Your task to perform on an android device: Clear the cart on ebay. Search for razer huntsman on ebay, select the first entry, and add it to the cart. Image 0: 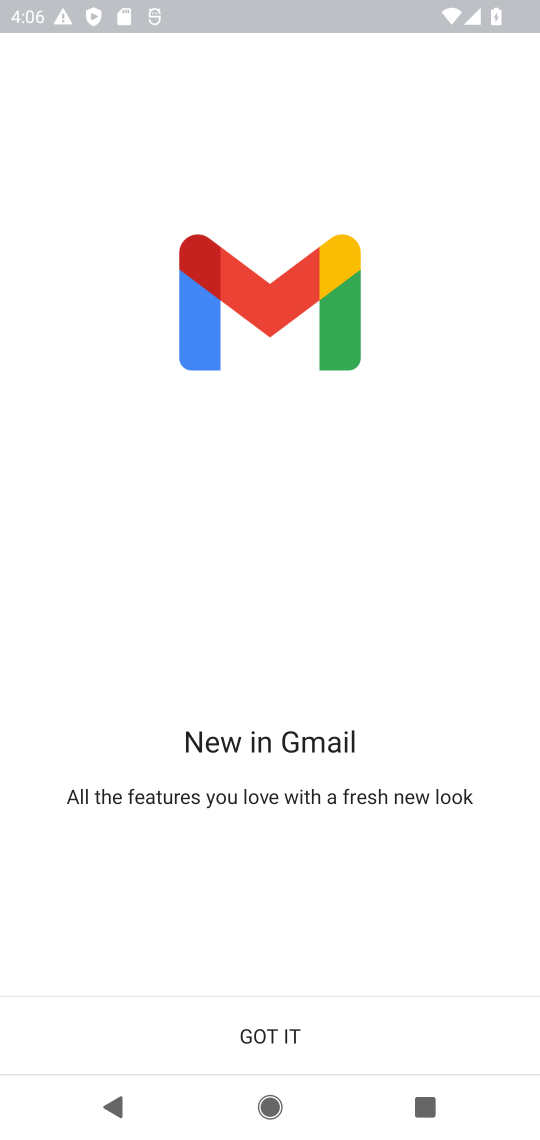
Step 0: press home button
Your task to perform on an android device: Clear the cart on ebay. Search for razer huntsman on ebay, select the first entry, and add it to the cart. Image 1: 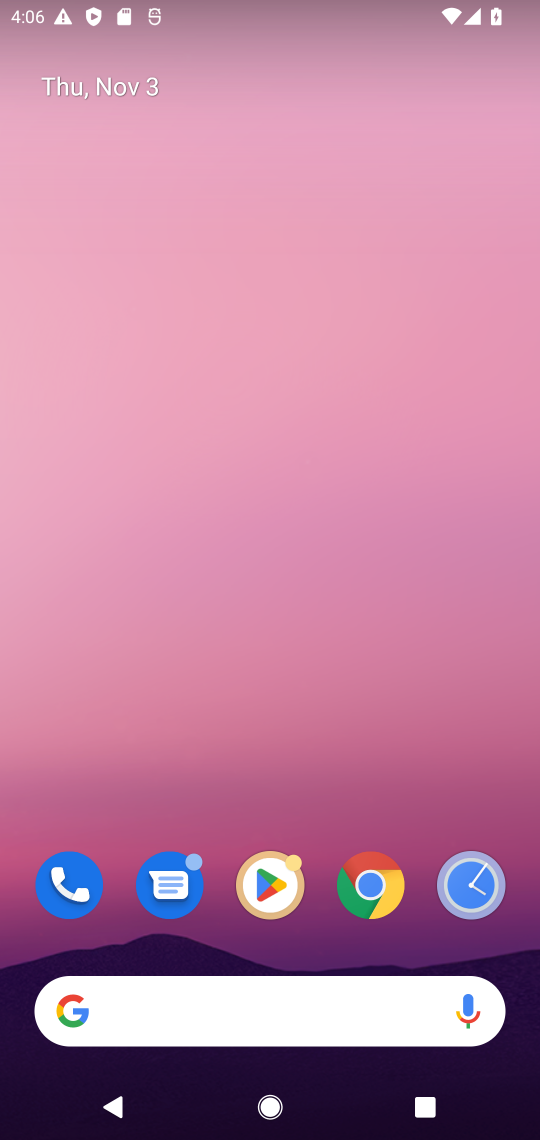
Step 1: click (389, 868)
Your task to perform on an android device: Clear the cart on ebay. Search for razer huntsman on ebay, select the first entry, and add it to the cart. Image 2: 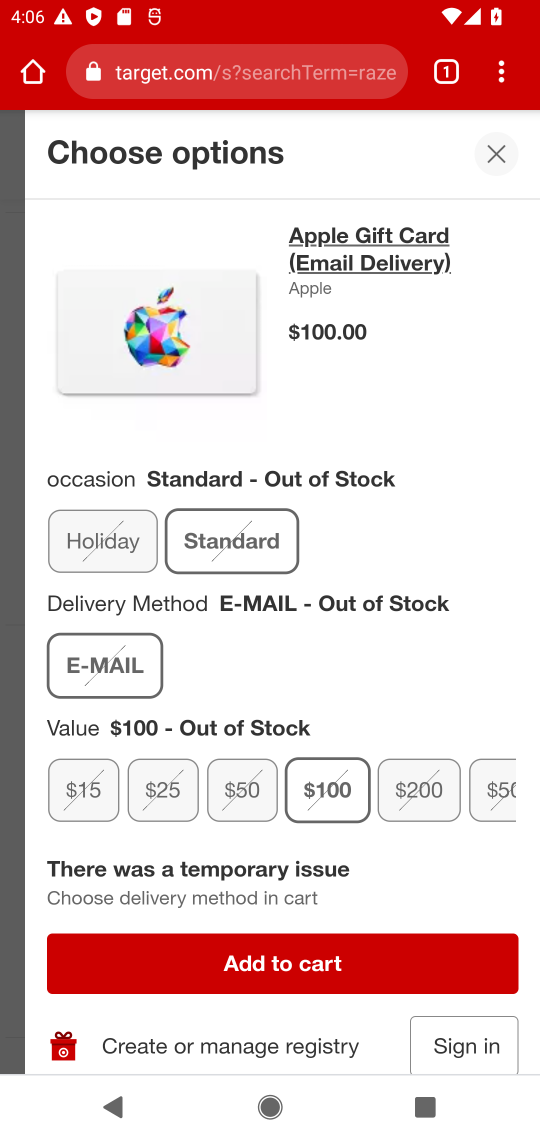
Step 2: click (448, 77)
Your task to perform on an android device: Clear the cart on ebay. Search for razer huntsman on ebay, select the first entry, and add it to the cart. Image 3: 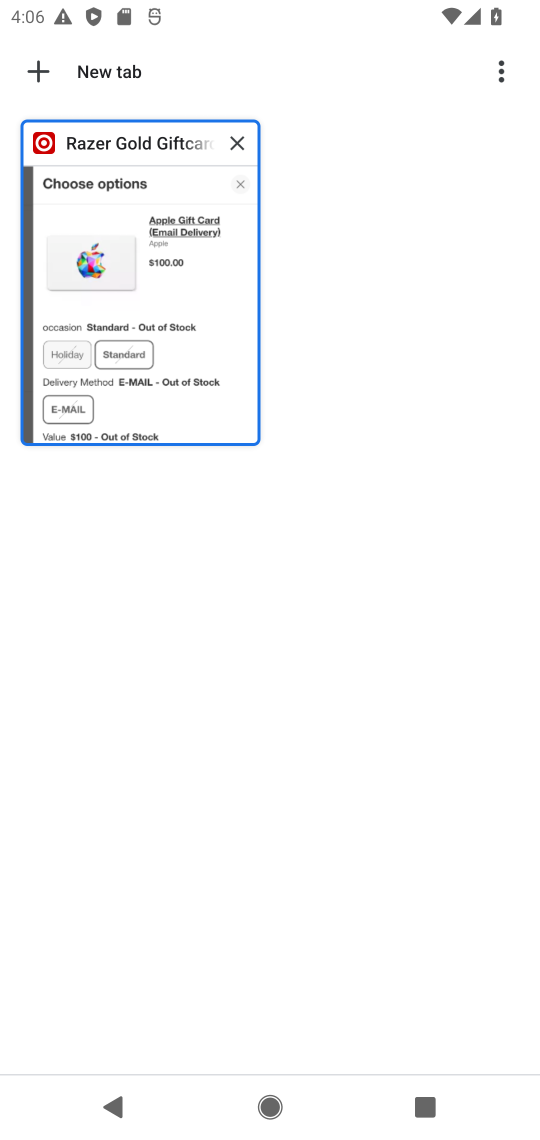
Step 3: click (37, 73)
Your task to perform on an android device: Clear the cart on ebay. Search for razer huntsman on ebay, select the first entry, and add it to the cart. Image 4: 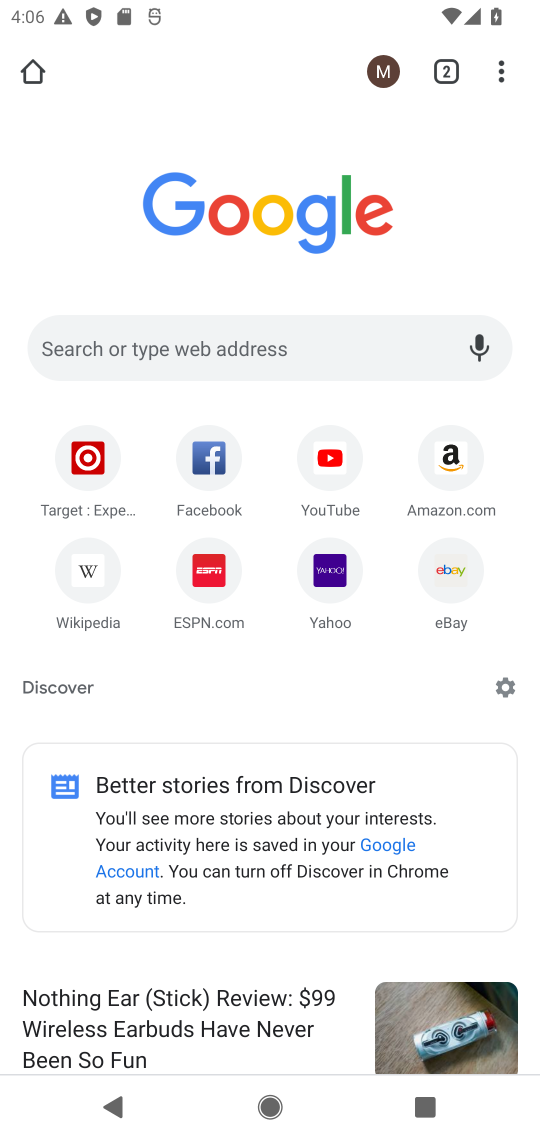
Step 4: click (250, 330)
Your task to perform on an android device: Clear the cart on ebay. Search for razer huntsman on ebay, select the first entry, and add it to the cart. Image 5: 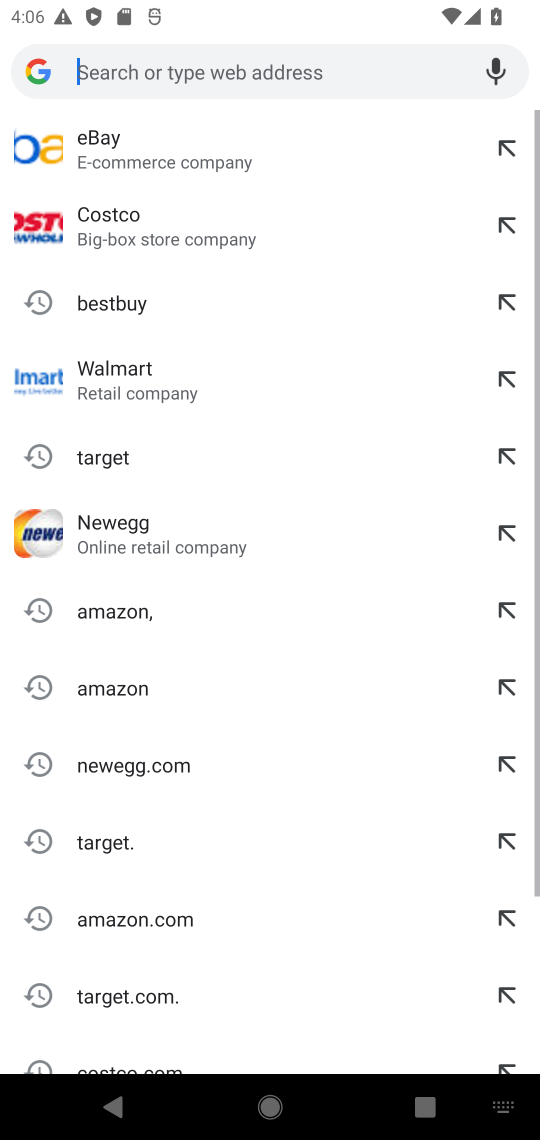
Step 5: type "ebay"
Your task to perform on an android device: Clear the cart on ebay. Search for razer huntsman on ebay, select the first entry, and add it to the cart. Image 6: 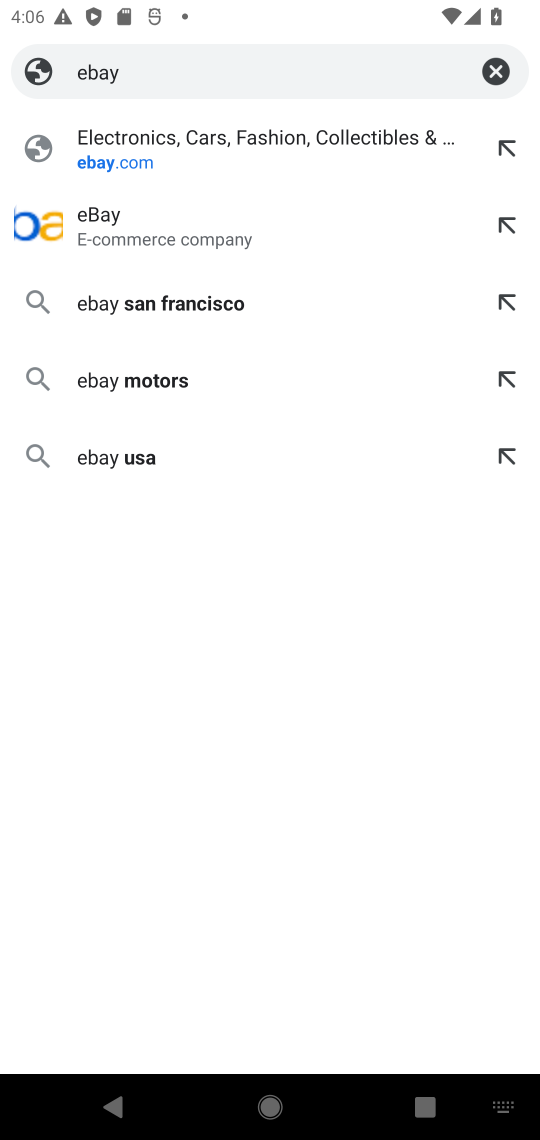
Step 6: click (137, 142)
Your task to perform on an android device: Clear the cart on ebay. Search for razer huntsman on ebay, select the first entry, and add it to the cart. Image 7: 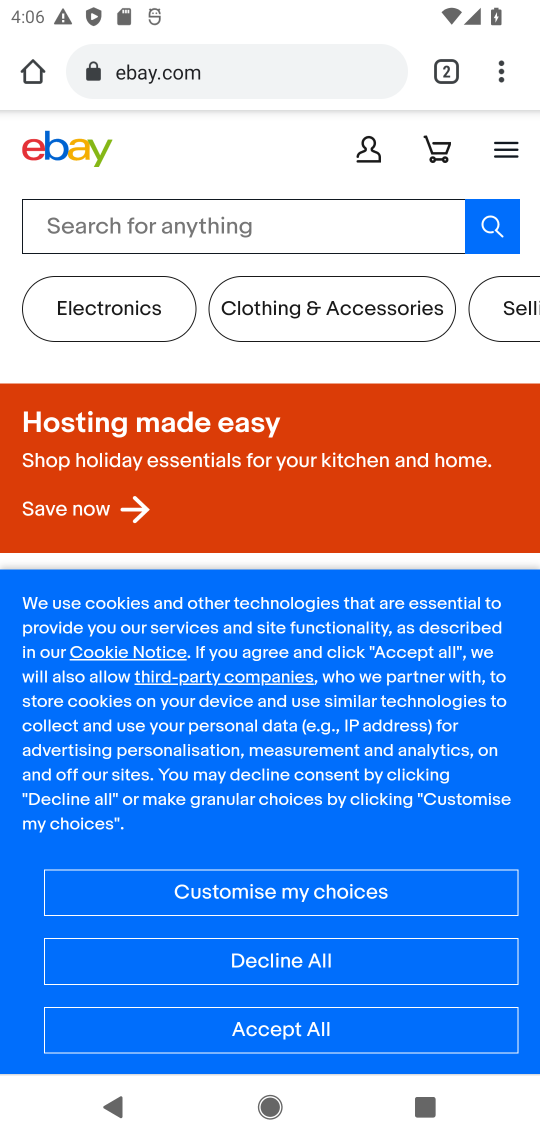
Step 7: click (335, 964)
Your task to perform on an android device: Clear the cart on ebay. Search for razer huntsman on ebay, select the first entry, and add it to the cart. Image 8: 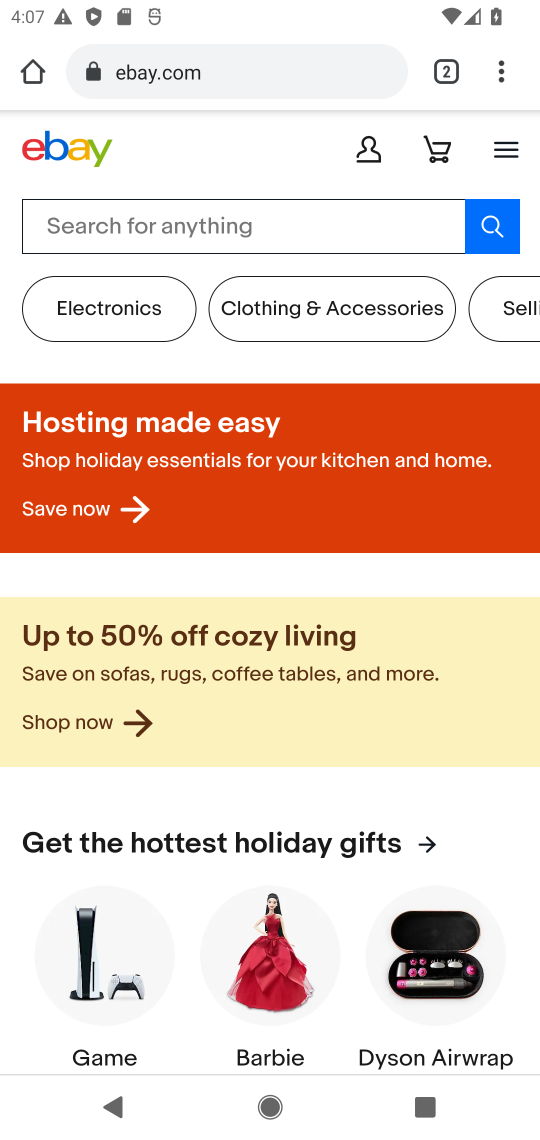
Step 8: click (317, 231)
Your task to perform on an android device: Clear the cart on ebay. Search for razer huntsman on ebay, select the first entry, and add it to the cart. Image 9: 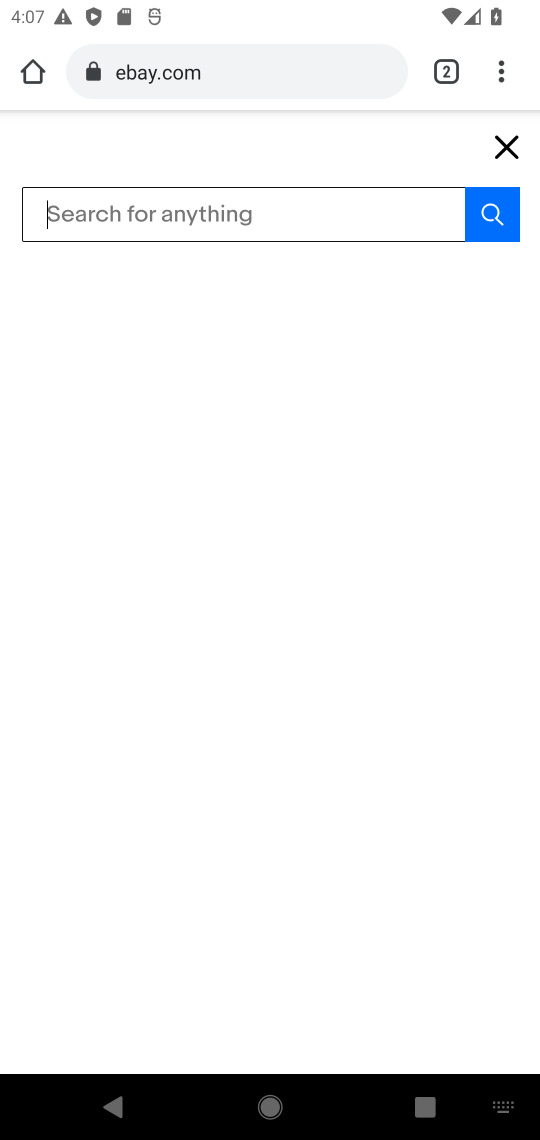
Step 9: type "razer huntsman"
Your task to perform on an android device: Clear the cart on ebay. Search for razer huntsman on ebay, select the first entry, and add it to the cart. Image 10: 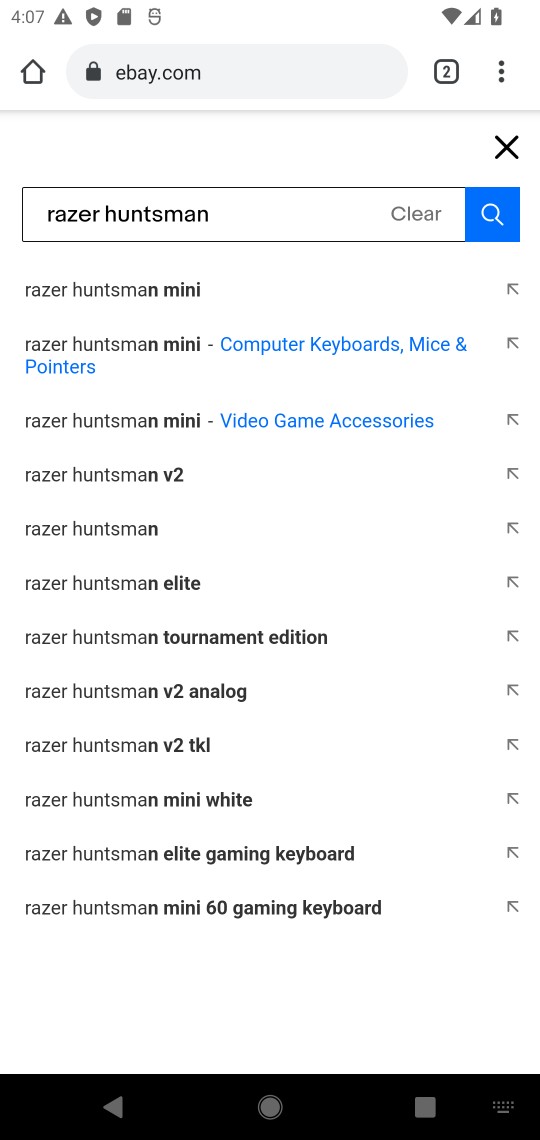
Step 10: click (181, 342)
Your task to perform on an android device: Clear the cart on ebay. Search for razer huntsman on ebay, select the first entry, and add it to the cart. Image 11: 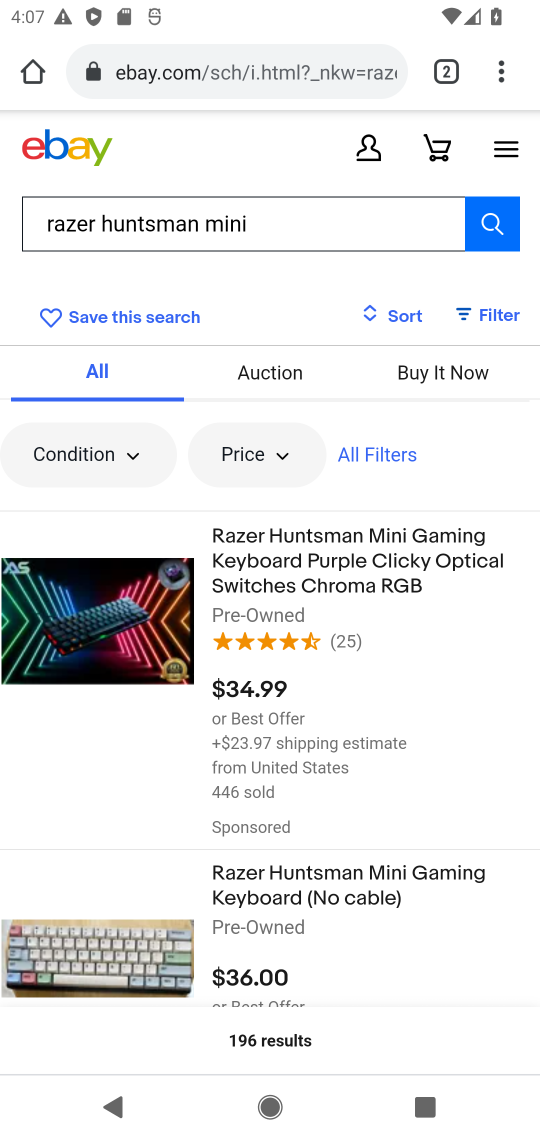
Step 11: click (291, 898)
Your task to perform on an android device: Clear the cart on ebay. Search for razer huntsman on ebay, select the first entry, and add it to the cart. Image 12: 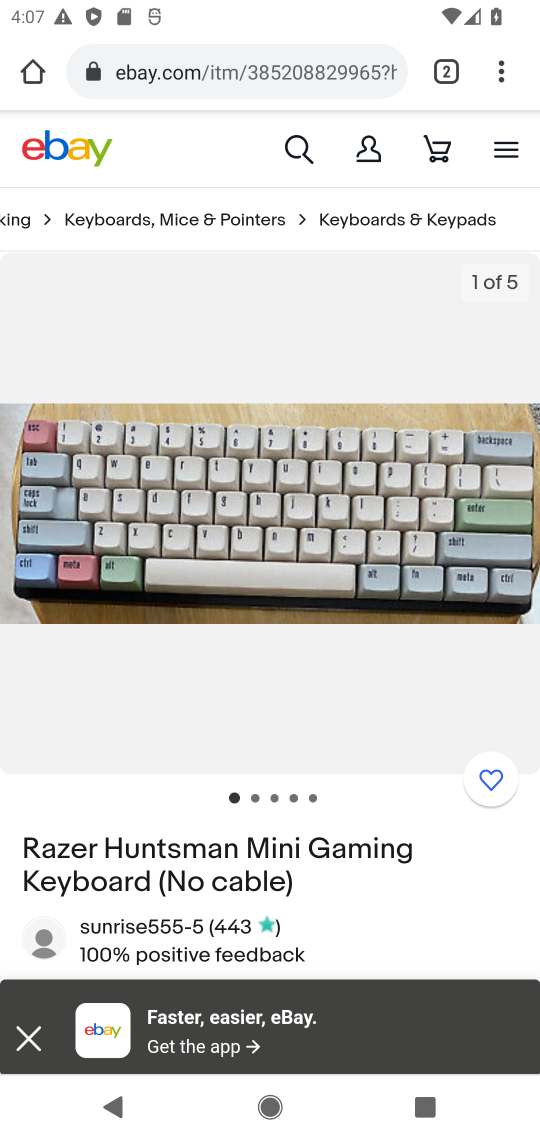
Step 12: drag from (391, 928) to (430, 197)
Your task to perform on an android device: Clear the cart on ebay. Search for razer huntsman on ebay, select the first entry, and add it to the cart. Image 13: 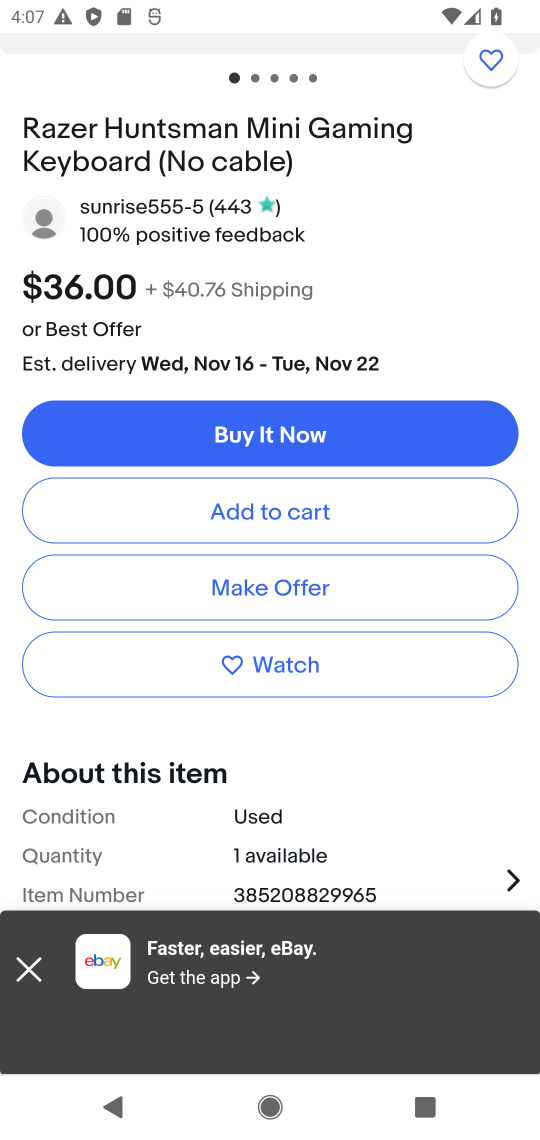
Step 13: click (349, 523)
Your task to perform on an android device: Clear the cart on ebay. Search for razer huntsman on ebay, select the first entry, and add it to the cart. Image 14: 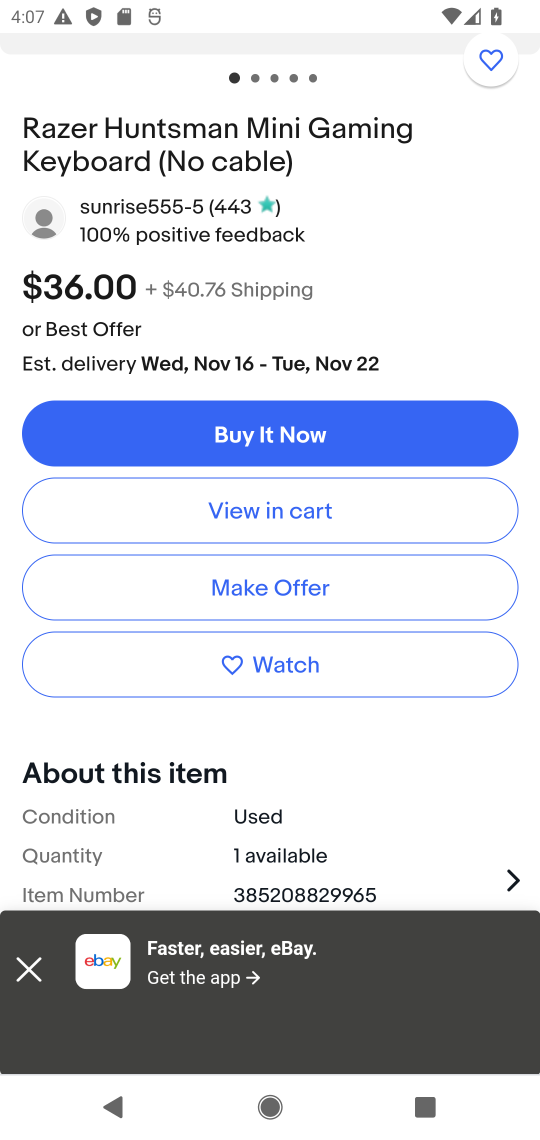
Step 14: task complete